Your task to perform on an android device: turn on notifications settings in the gmail app Image 0: 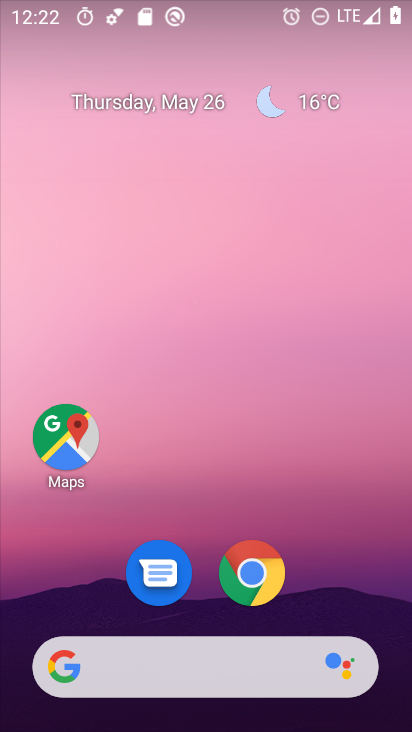
Step 0: drag from (334, 631) to (378, 3)
Your task to perform on an android device: turn on notifications settings in the gmail app Image 1: 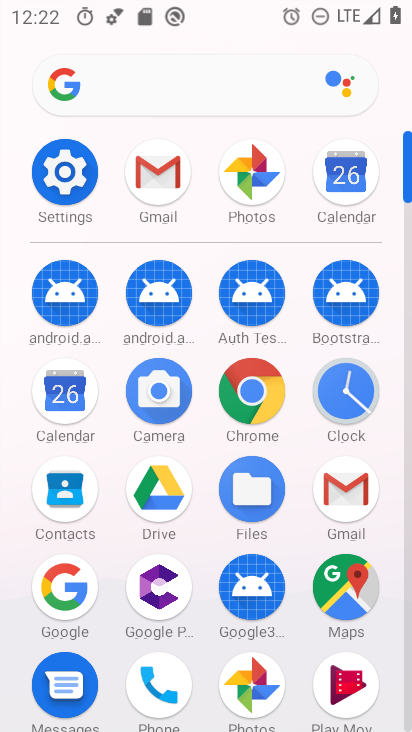
Step 1: click (338, 501)
Your task to perform on an android device: turn on notifications settings in the gmail app Image 2: 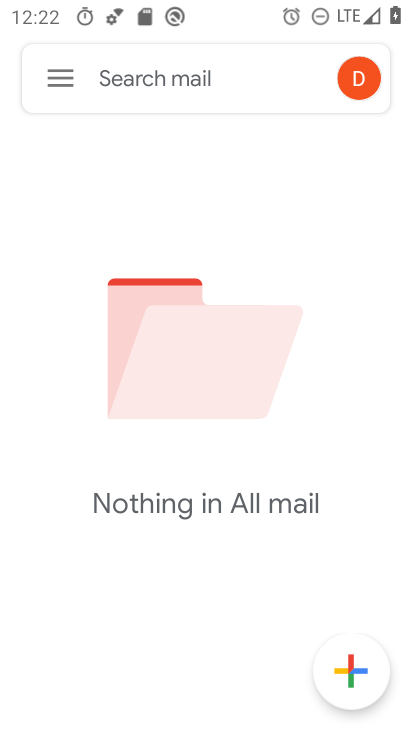
Step 2: click (56, 83)
Your task to perform on an android device: turn on notifications settings in the gmail app Image 3: 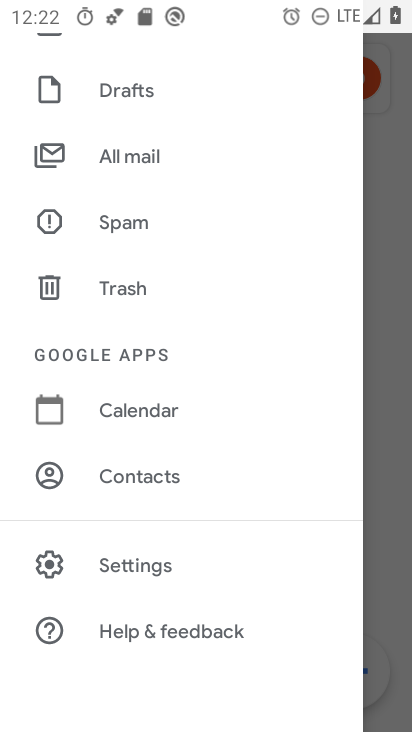
Step 3: click (140, 575)
Your task to perform on an android device: turn on notifications settings in the gmail app Image 4: 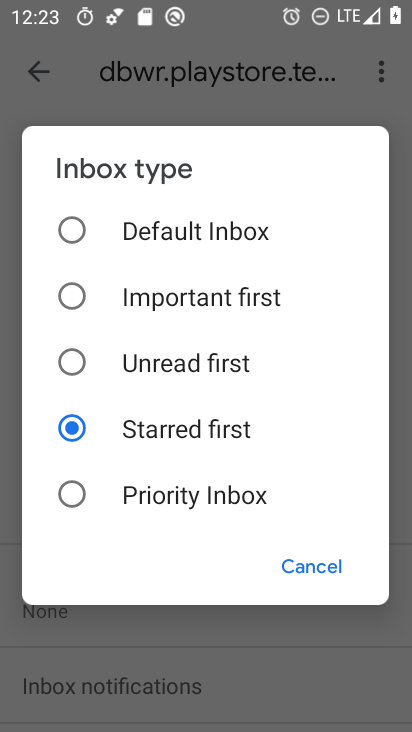
Step 4: click (299, 561)
Your task to perform on an android device: turn on notifications settings in the gmail app Image 5: 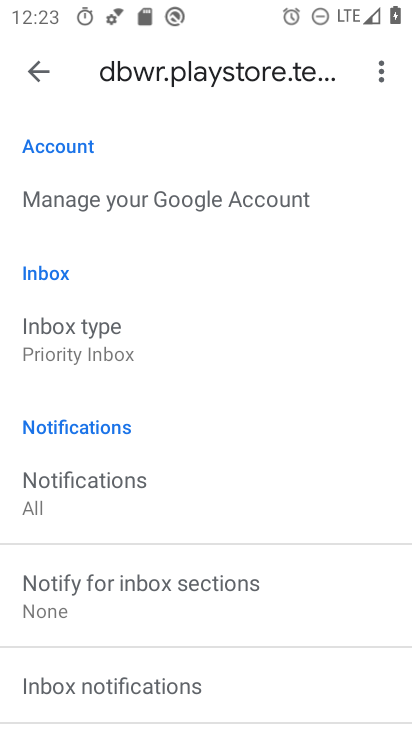
Step 5: click (32, 76)
Your task to perform on an android device: turn on notifications settings in the gmail app Image 6: 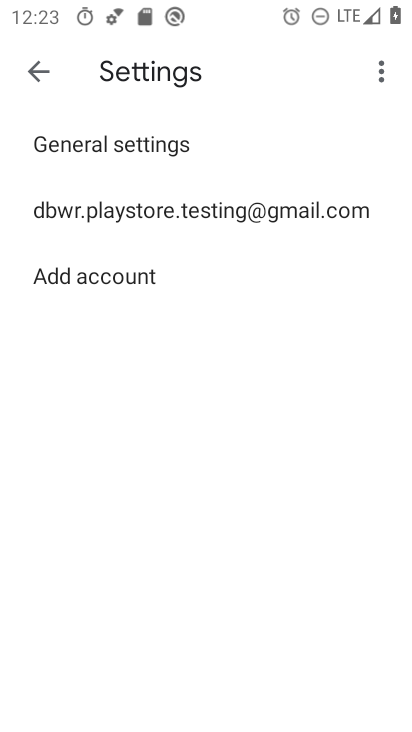
Step 6: click (97, 142)
Your task to perform on an android device: turn on notifications settings in the gmail app Image 7: 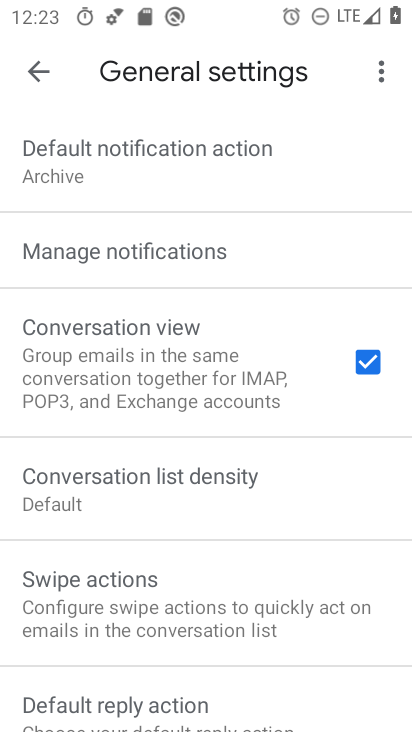
Step 7: click (90, 257)
Your task to perform on an android device: turn on notifications settings in the gmail app Image 8: 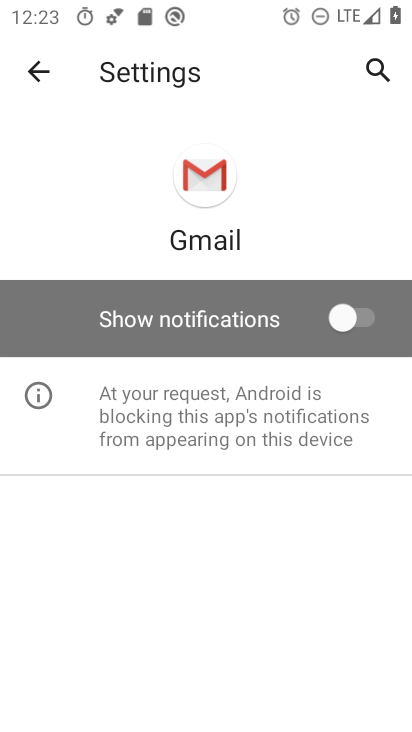
Step 8: click (341, 327)
Your task to perform on an android device: turn on notifications settings in the gmail app Image 9: 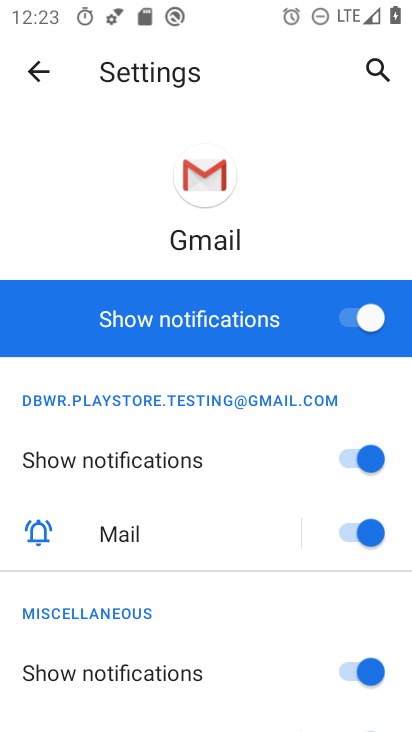
Step 9: task complete